Your task to perform on an android device: Go to Maps Image 0: 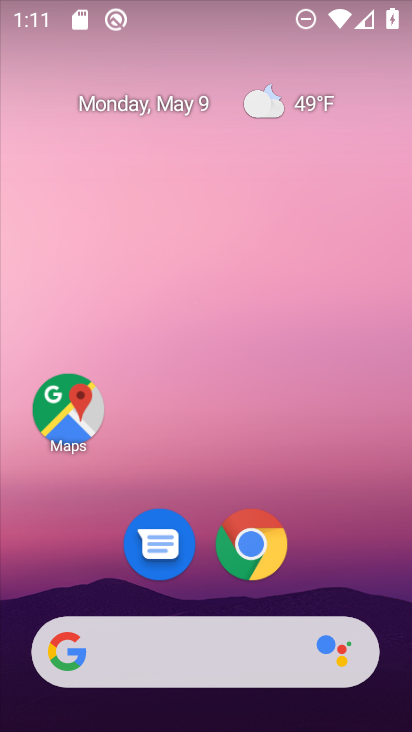
Step 0: drag from (368, 551) to (408, 208)
Your task to perform on an android device: Go to Maps Image 1: 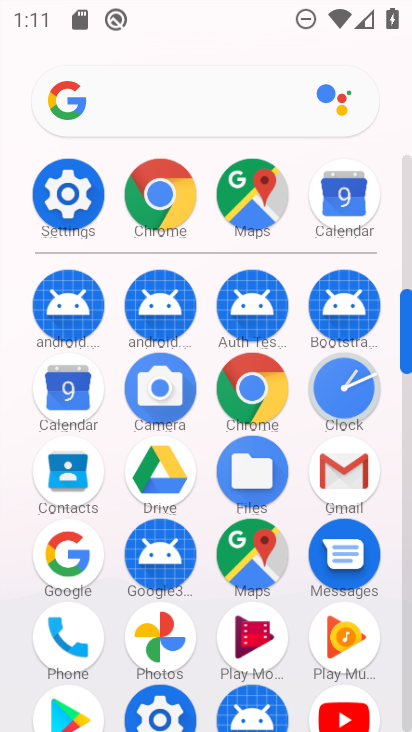
Step 1: click (266, 204)
Your task to perform on an android device: Go to Maps Image 2: 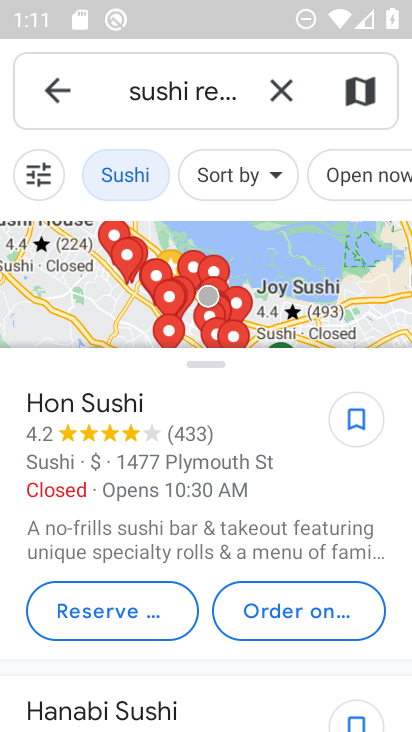
Step 2: task complete